Your task to perform on an android device: turn off location Image 0: 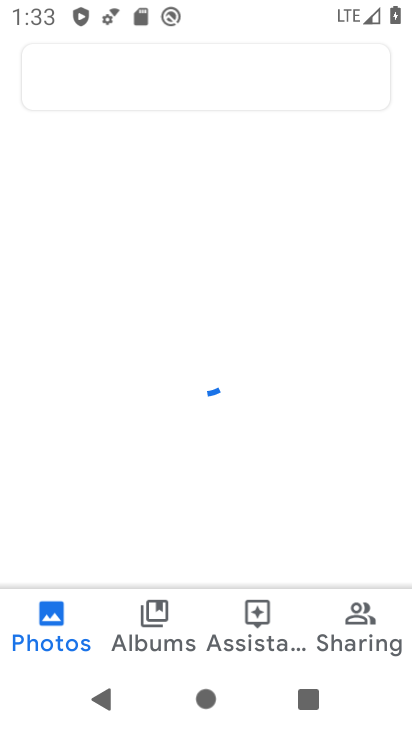
Step 0: press home button
Your task to perform on an android device: turn off location Image 1: 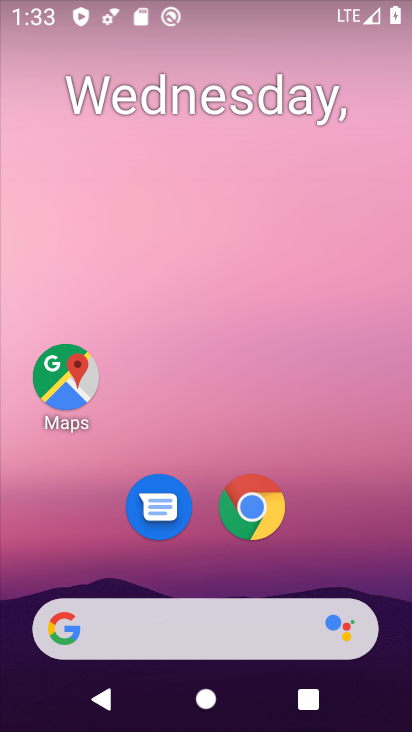
Step 1: drag from (385, 543) to (285, 16)
Your task to perform on an android device: turn off location Image 2: 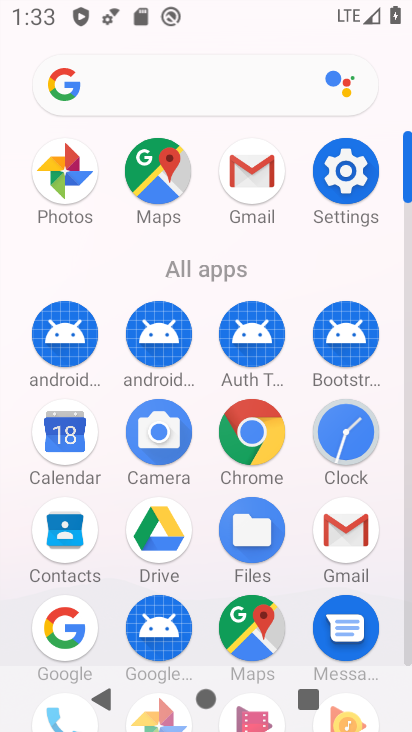
Step 2: click (285, 16)
Your task to perform on an android device: turn off location Image 3: 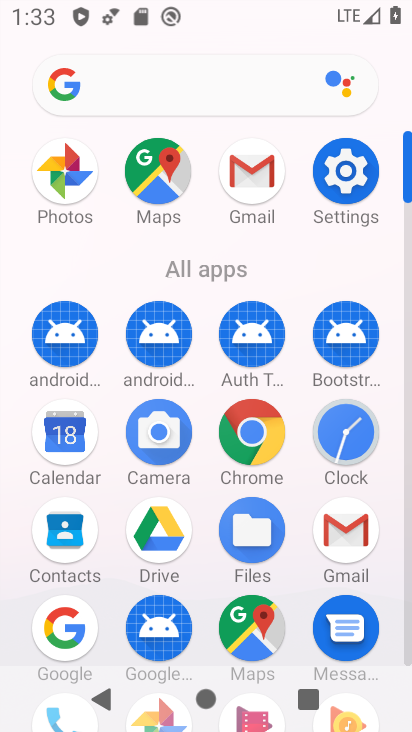
Step 3: click (345, 190)
Your task to perform on an android device: turn off location Image 4: 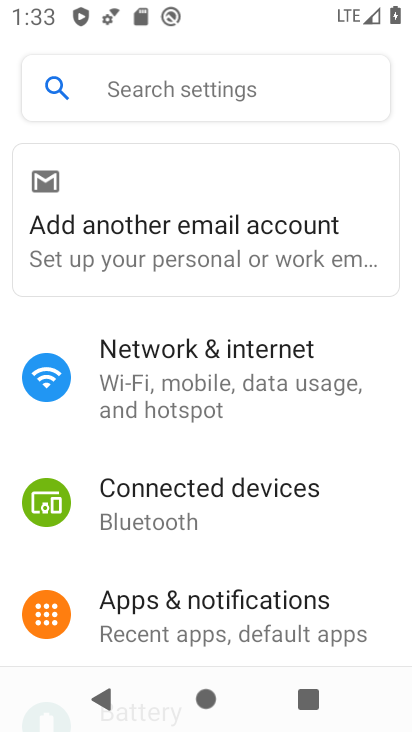
Step 4: drag from (325, 540) to (256, 95)
Your task to perform on an android device: turn off location Image 5: 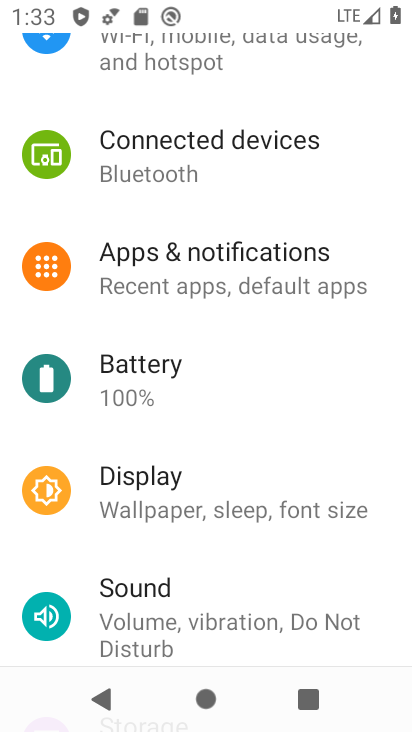
Step 5: drag from (258, 643) to (212, 183)
Your task to perform on an android device: turn off location Image 6: 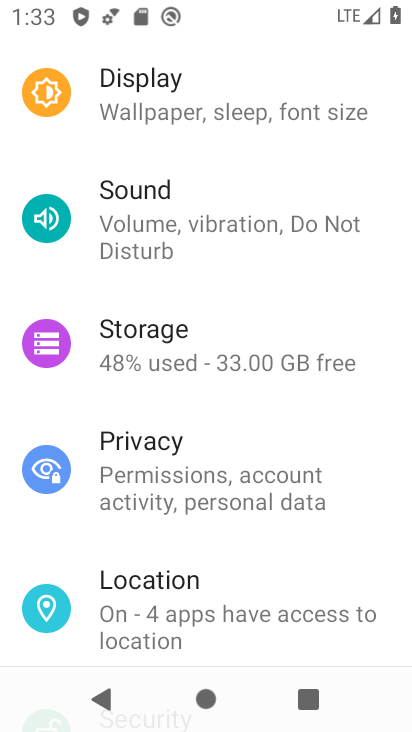
Step 6: click (275, 611)
Your task to perform on an android device: turn off location Image 7: 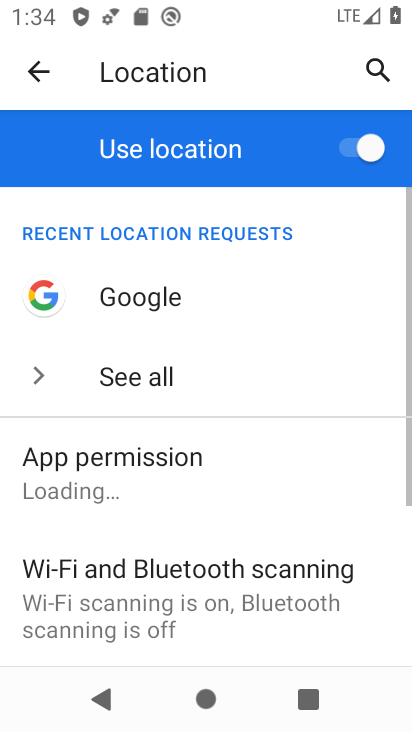
Step 7: click (354, 161)
Your task to perform on an android device: turn off location Image 8: 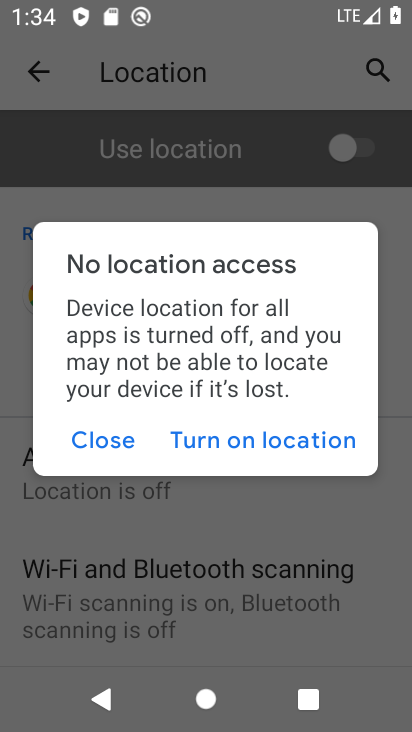
Step 8: task complete